Your task to perform on an android device: Go to Google Image 0: 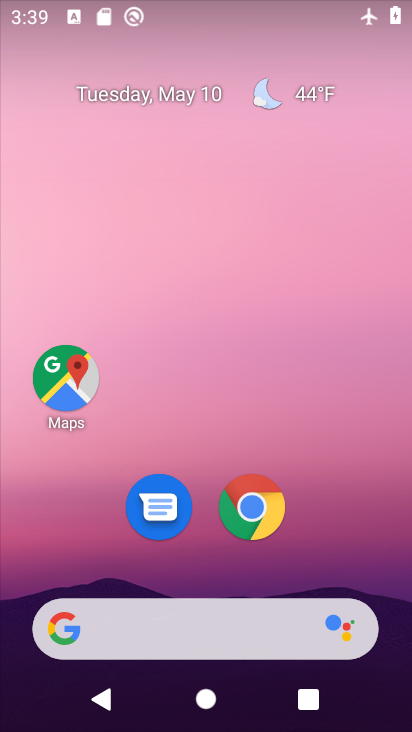
Step 0: drag from (227, 552) to (266, 256)
Your task to perform on an android device: Go to Google Image 1: 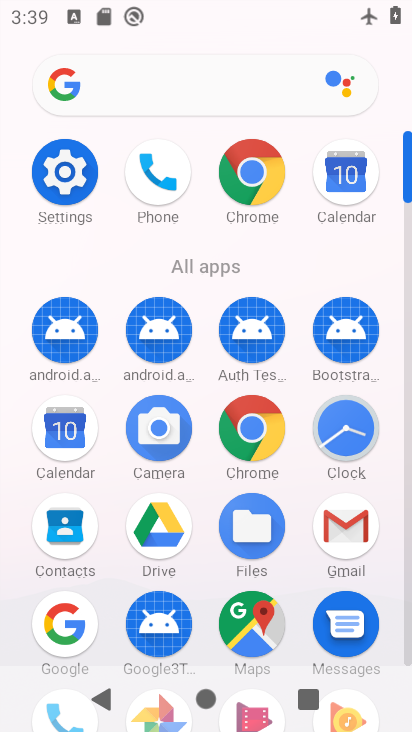
Step 1: click (73, 627)
Your task to perform on an android device: Go to Google Image 2: 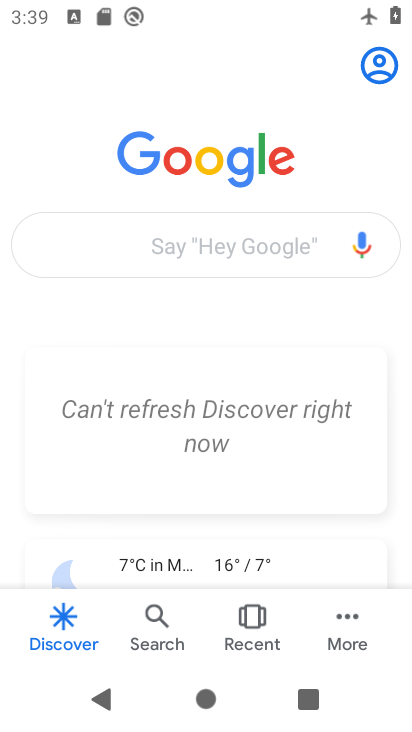
Step 2: task complete